Your task to perform on an android device: turn off notifications settings in the gmail app Image 0: 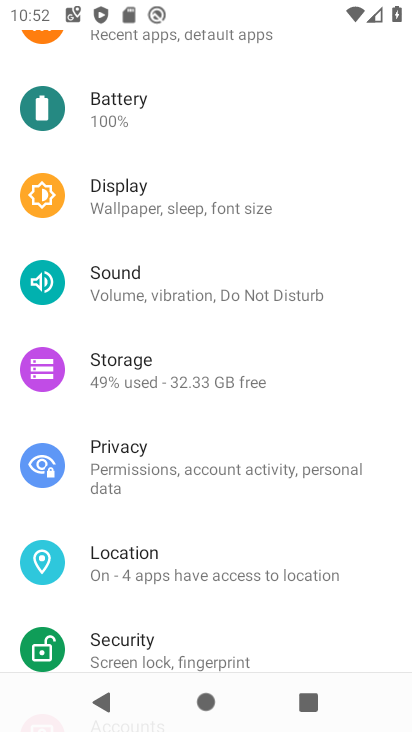
Step 0: press home button
Your task to perform on an android device: turn off notifications settings in the gmail app Image 1: 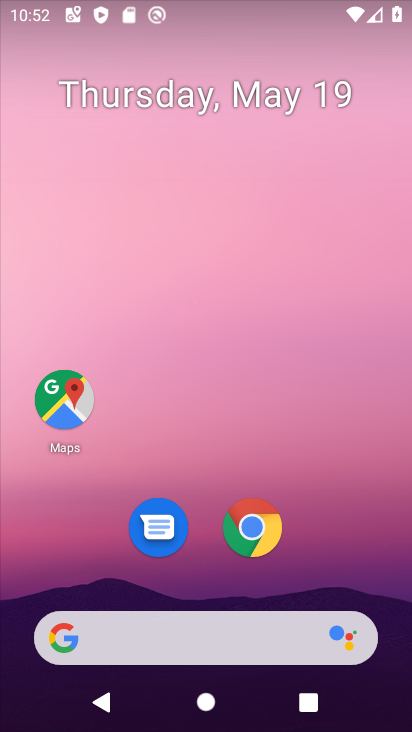
Step 1: drag from (196, 551) to (222, 2)
Your task to perform on an android device: turn off notifications settings in the gmail app Image 2: 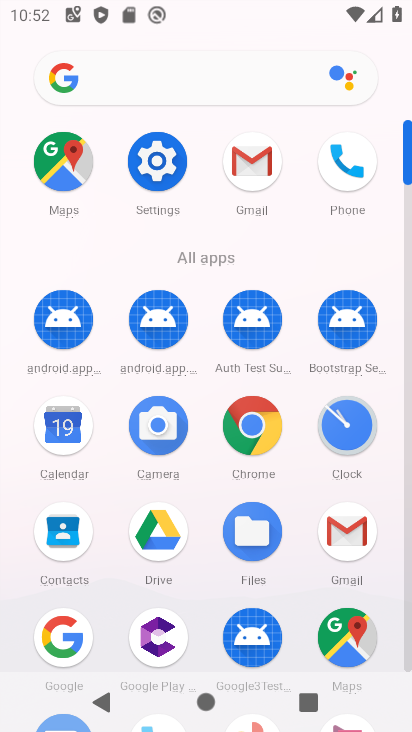
Step 2: click (353, 534)
Your task to perform on an android device: turn off notifications settings in the gmail app Image 3: 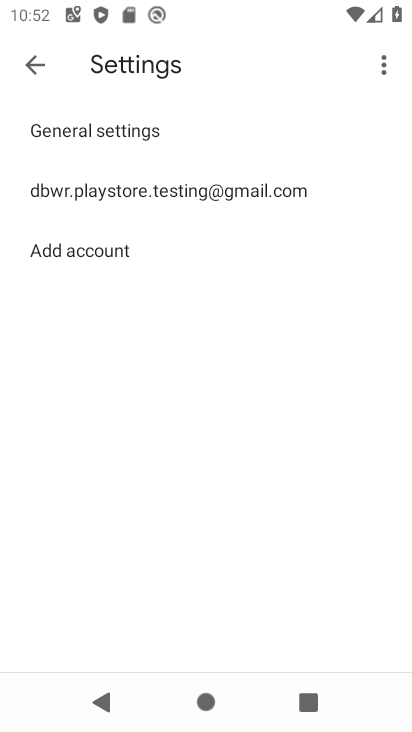
Step 3: click (142, 128)
Your task to perform on an android device: turn off notifications settings in the gmail app Image 4: 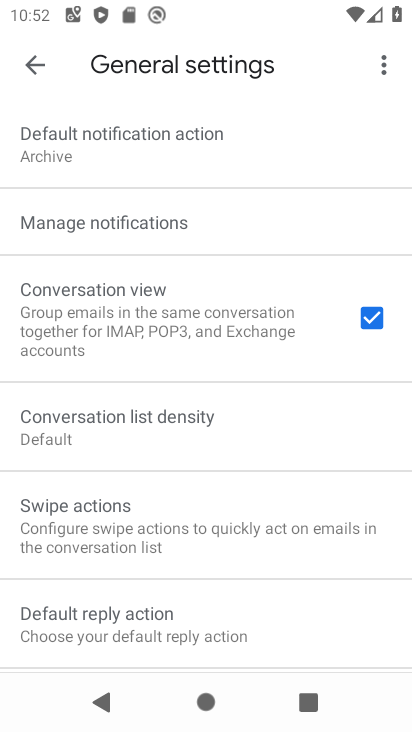
Step 4: click (139, 212)
Your task to perform on an android device: turn off notifications settings in the gmail app Image 5: 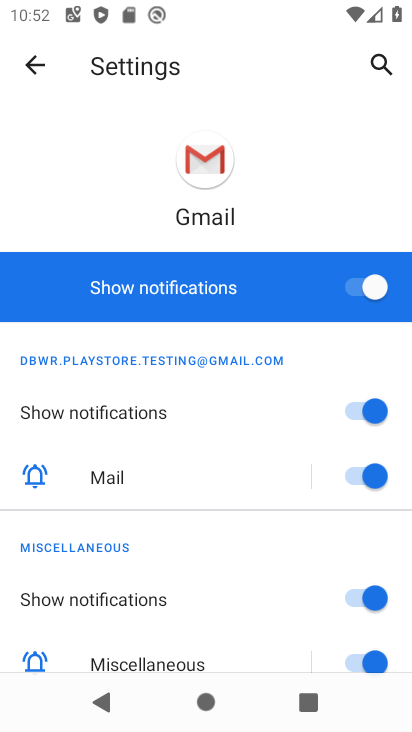
Step 5: click (343, 281)
Your task to perform on an android device: turn off notifications settings in the gmail app Image 6: 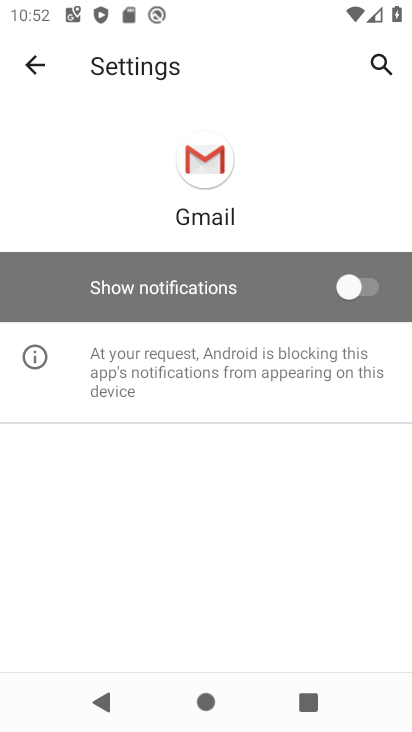
Step 6: task complete